Your task to perform on an android device: change the clock display to show seconds Image 0: 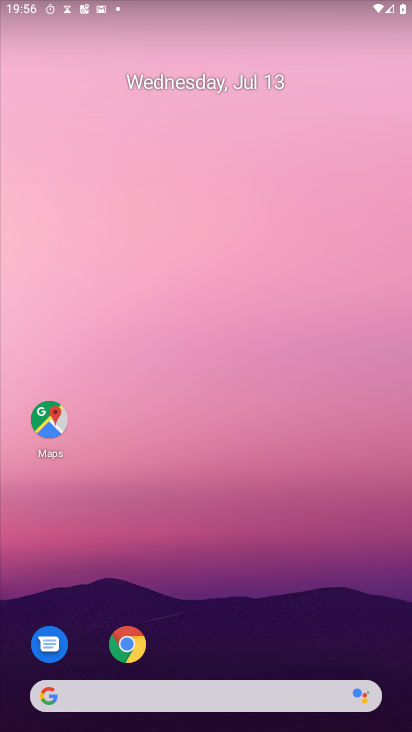
Step 0: drag from (245, 606) to (284, 77)
Your task to perform on an android device: change the clock display to show seconds Image 1: 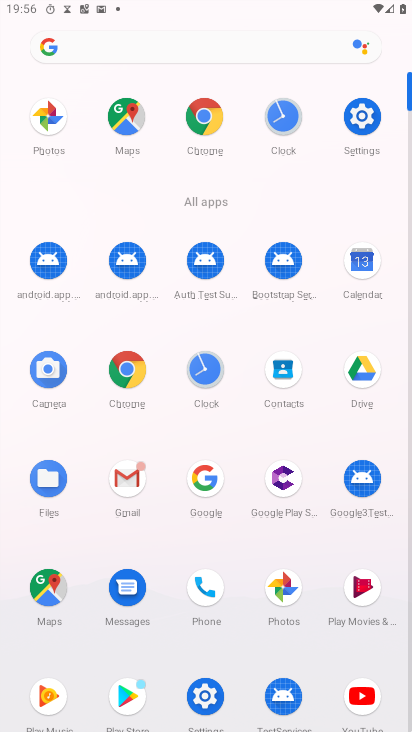
Step 1: click (288, 108)
Your task to perform on an android device: change the clock display to show seconds Image 2: 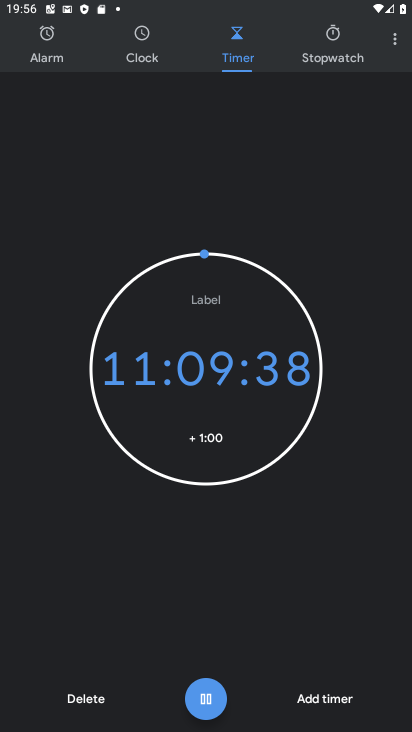
Step 2: click (388, 44)
Your task to perform on an android device: change the clock display to show seconds Image 3: 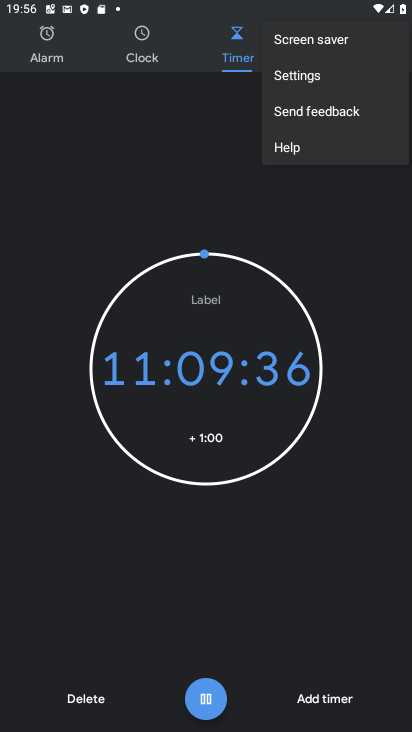
Step 3: click (334, 76)
Your task to perform on an android device: change the clock display to show seconds Image 4: 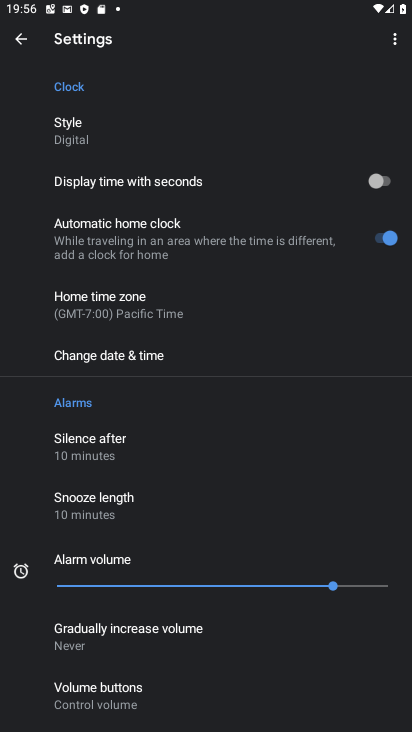
Step 4: click (379, 181)
Your task to perform on an android device: change the clock display to show seconds Image 5: 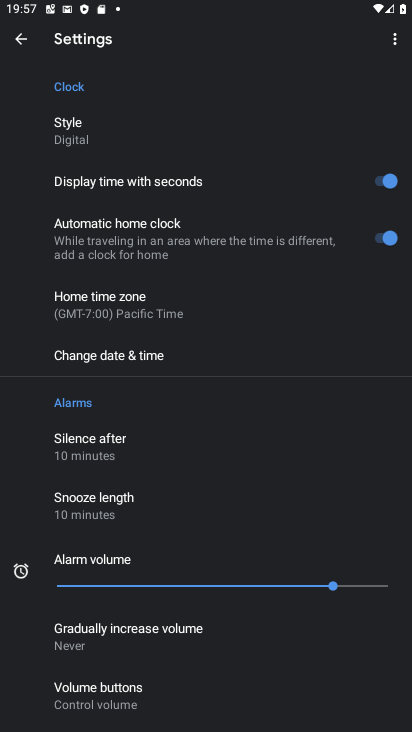
Step 5: task complete